Your task to perform on an android device: see creations saved in the google photos Image 0: 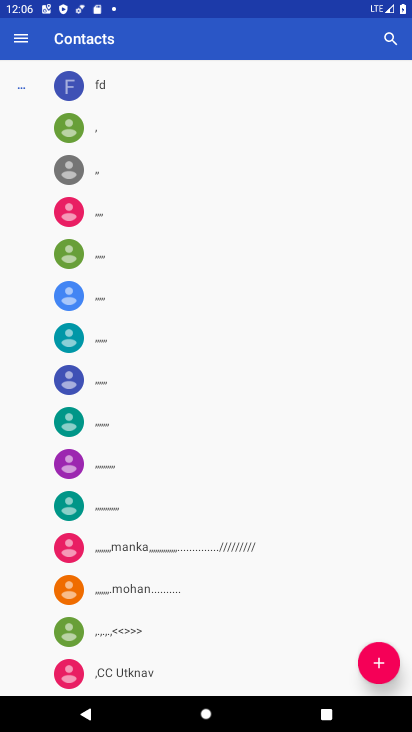
Step 0: press home button
Your task to perform on an android device: see creations saved in the google photos Image 1: 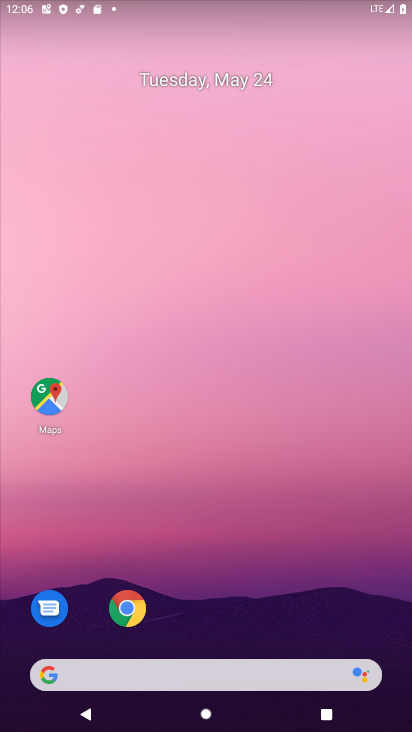
Step 1: drag from (214, 638) to (215, 39)
Your task to perform on an android device: see creations saved in the google photos Image 2: 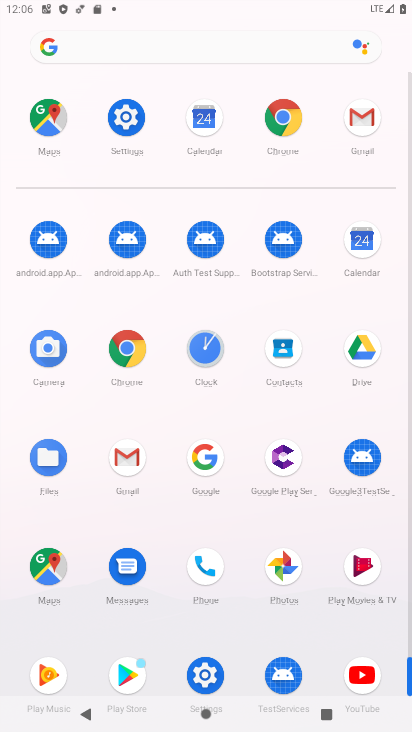
Step 2: click (283, 563)
Your task to perform on an android device: see creations saved in the google photos Image 3: 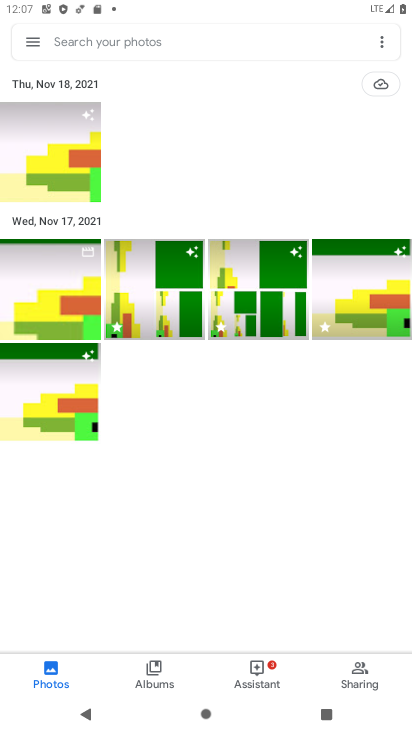
Step 3: click (124, 35)
Your task to perform on an android device: see creations saved in the google photos Image 4: 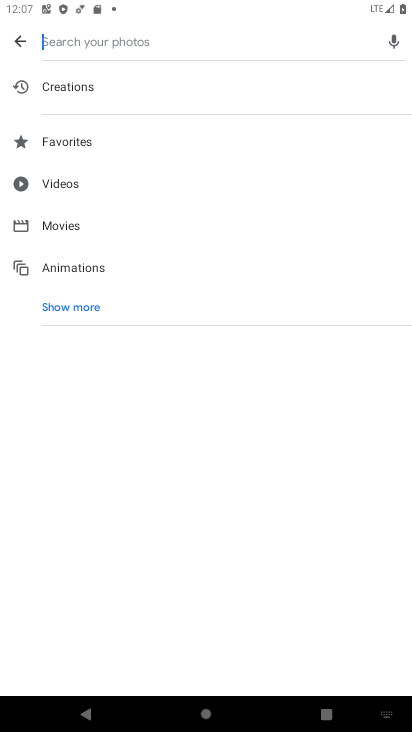
Step 4: click (68, 302)
Your task to perform on an android device: see creations saved in the google photos Image 5: 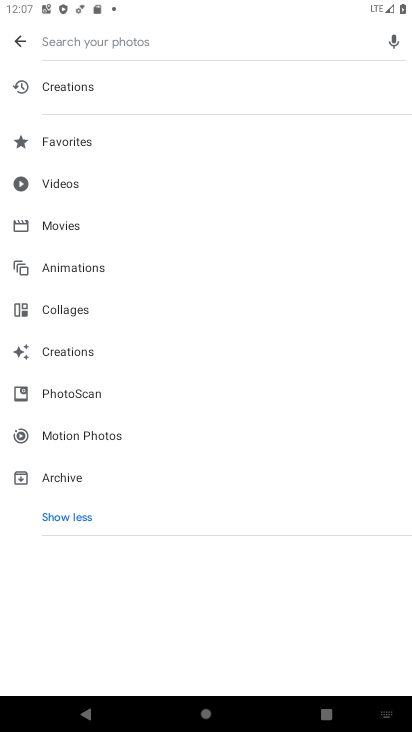
Step 5: click (102, 349)
Your task to perform on an android device: see creations saved in the google photos Image 6: 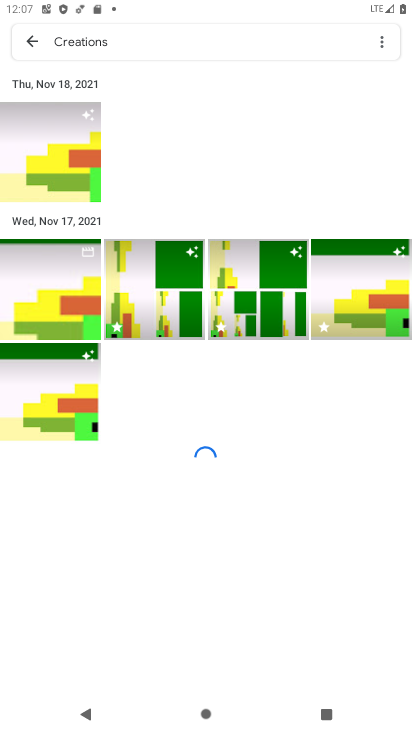
Step 6: task complete